Your task to perform on an android device: toggle improve location accuracy Image 0: 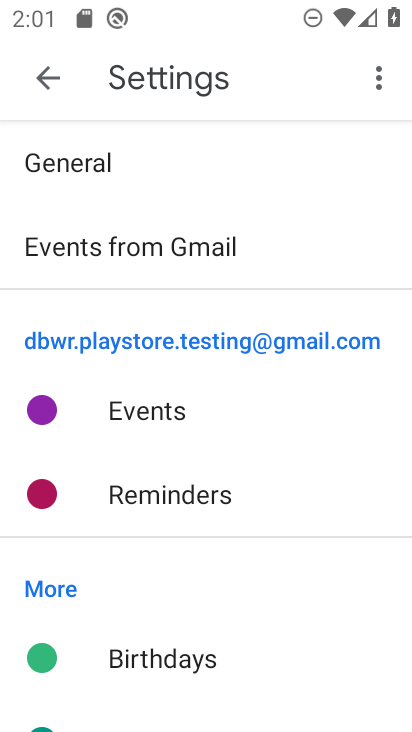
Step 0: press home button
Your task to perform on an android device: toggle improve location accuracy Image 1: 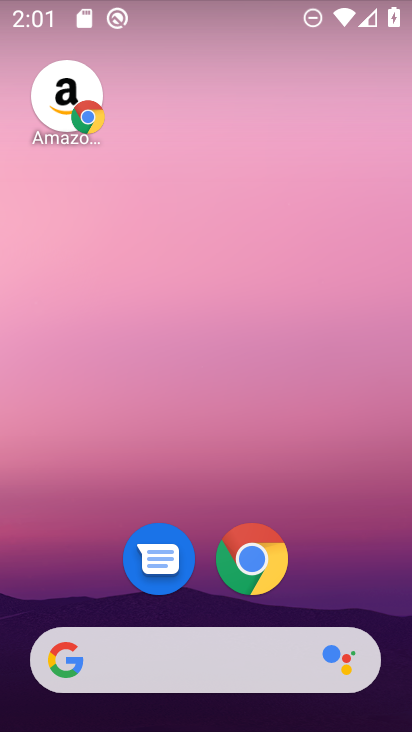
Step 1: drag from (332, 588) to (315, 165)
Your task to perform on an android device: toggle improve location accuracy Image 2: 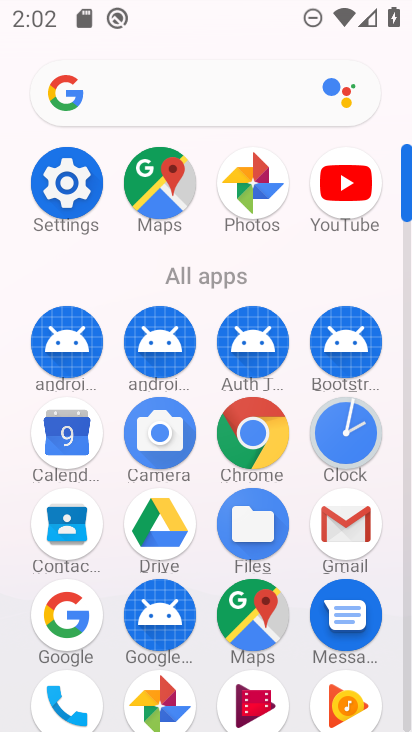
Step 2: click (72, 174)
Your task to perform on an android device: toggle improve location accuracy Image 3: 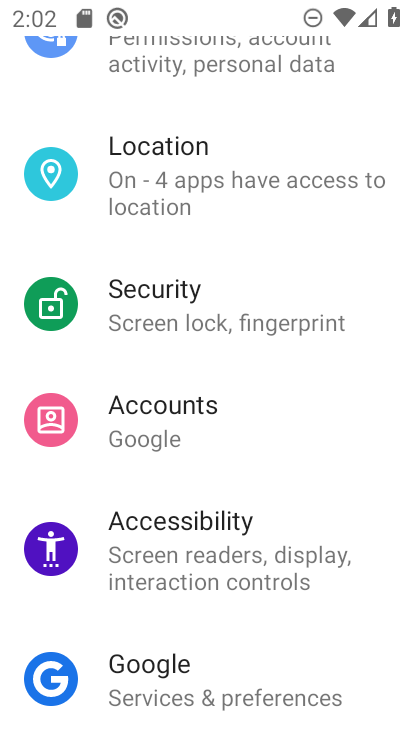
Step 3: click (176, 192)
Your task to perform on an android device: toggle improve location accuracy Image 4: 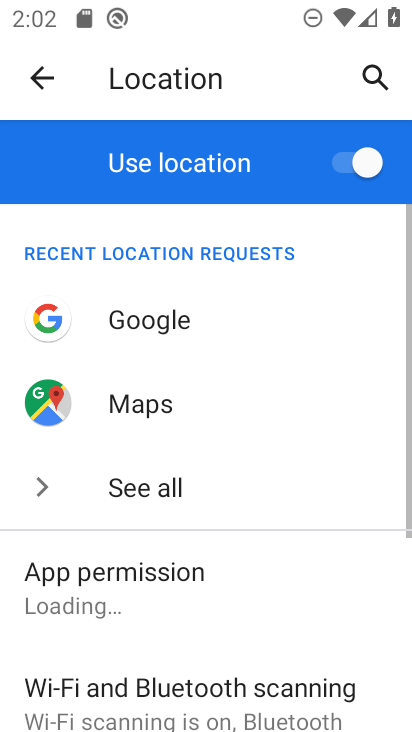
Step 4: drag from (242, 556) to (269, 218)
Your task to perform on an android device: toggle improve location accuracy Image 5: 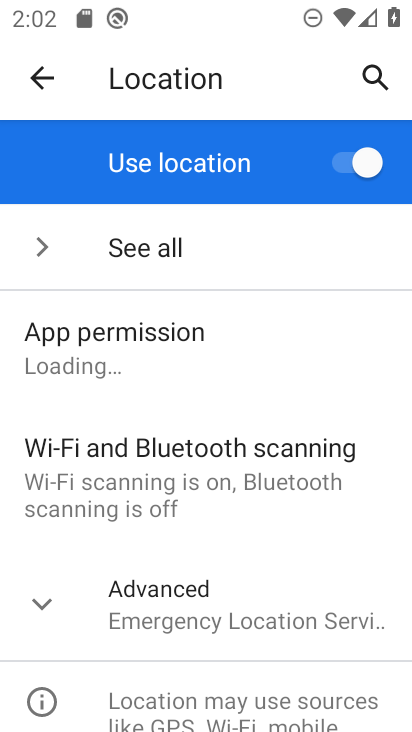
Step 5: click (176, 607)
Your task to perform on an android device: toggle improve location accuracy Image 6: 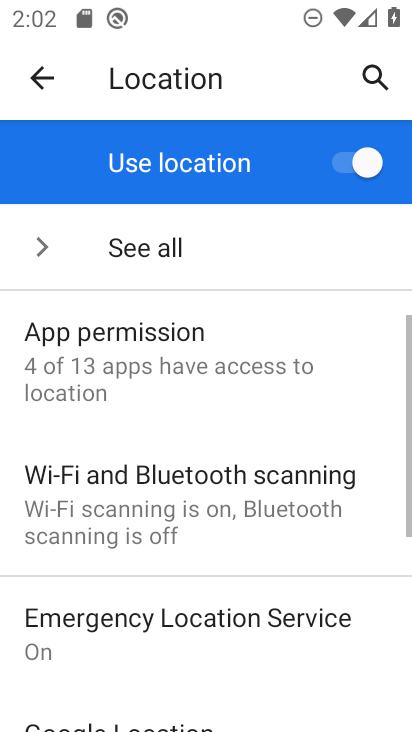
Step 6: drag from (176, 607) to (193, 220)
Your task to perform on an android device: toggle improve location accuracy Image 7: 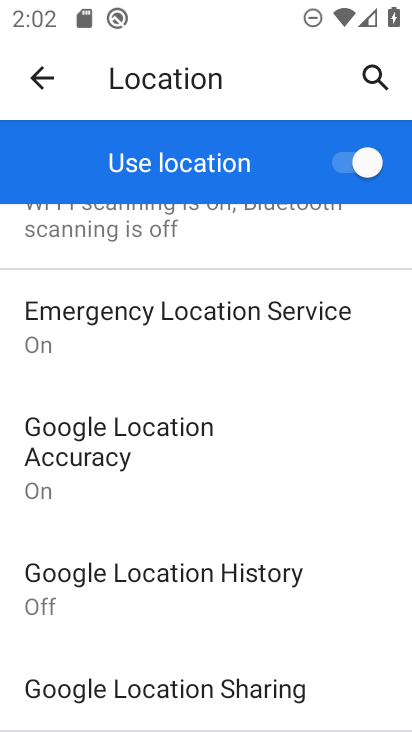
Step 7: click (167, 445)
Your task to perform on an android device: toggle improve location accuracy Image 8: 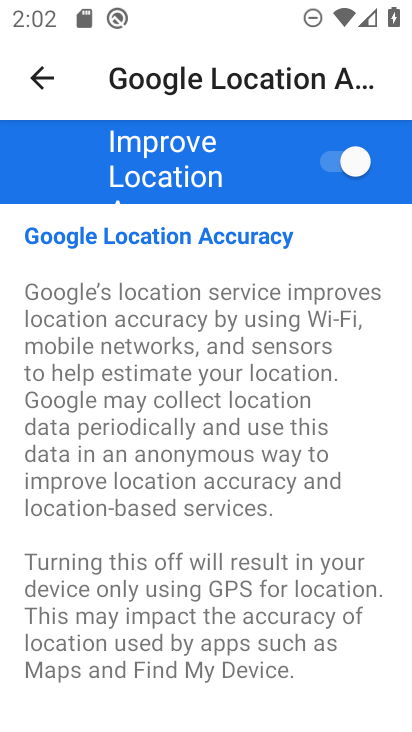
Step 8: click (355, 167)
Your task to perform on an android device: toggle improve location accuracy Image 9: 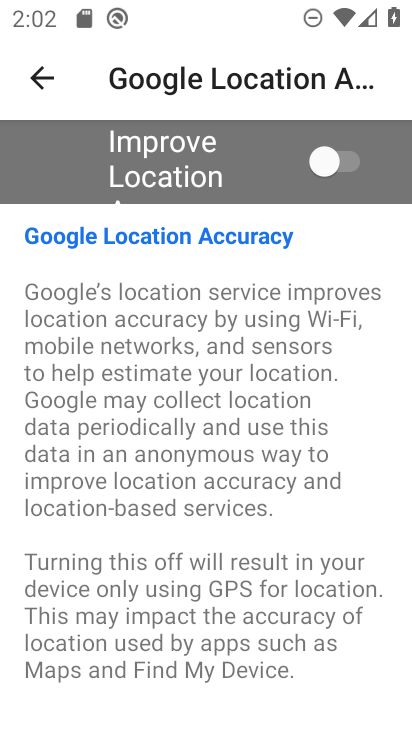
Step 9: task complete